Your task to perform on an android device: open app "The Home Depot" (install if not already installed) Image 0: 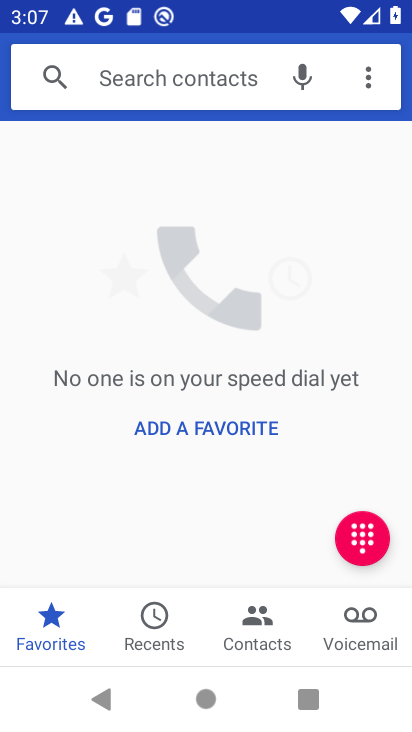
Step 0: press home button
Your task to perform on an android device: open app "The Home Depot" (install if not already installed) Image 1: 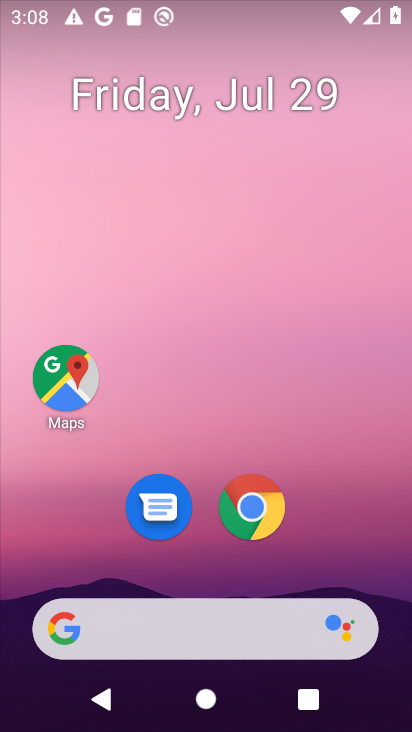
Step 1: task complete